Your task to perform on an android device: Show me popular games on the Play Store Image 0: 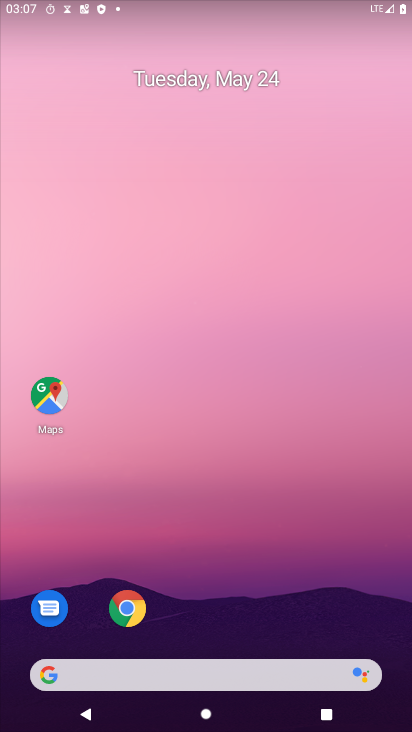
Step 0: drag from (371, 620) to (245, 117)
Your task to perform on an android device: Show me popular games on the Play Store Image 1: 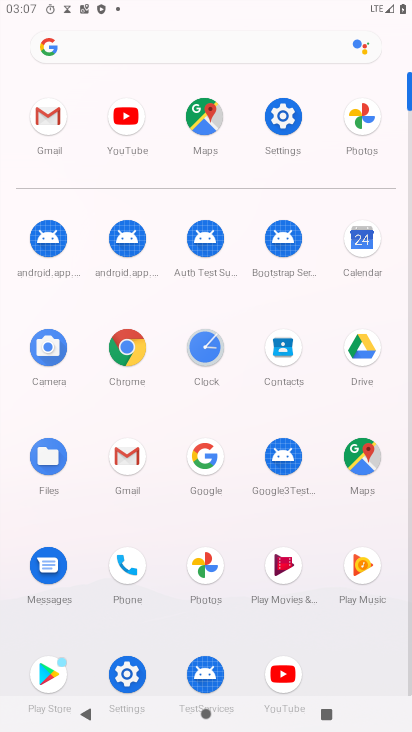
Step 1: click (46, 668)
Your task to perform on an android device: Show me popular games on the Play Store Image 2: 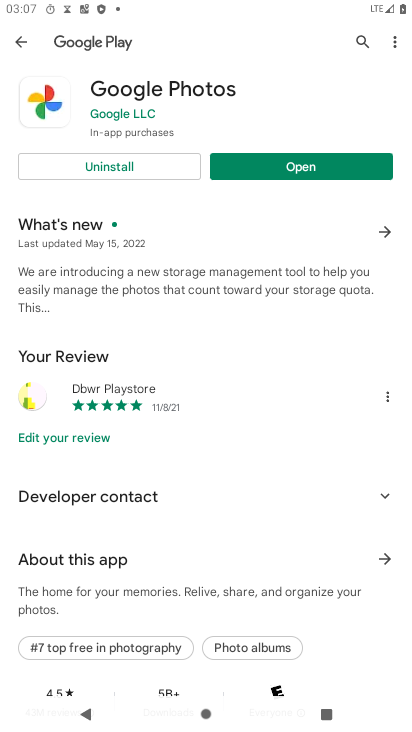
Step 2: click (18, 42)
Your task to perform on an android device: Show me popular games on the Play Store Image 3: 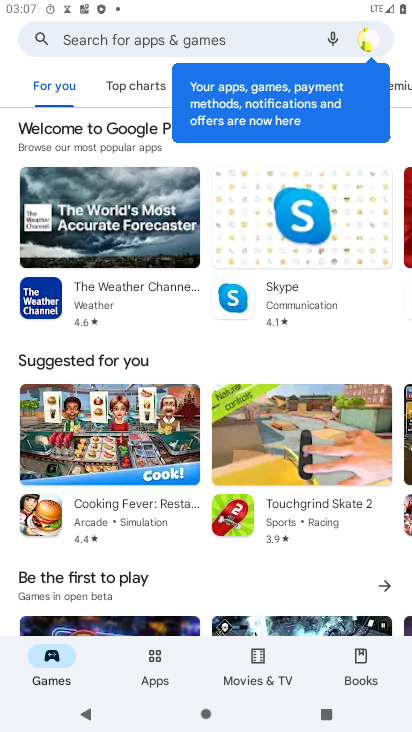
Step 3: click (208, 376)
Your task to perform on an android device: Show me popular games on the Play Store Image 4: 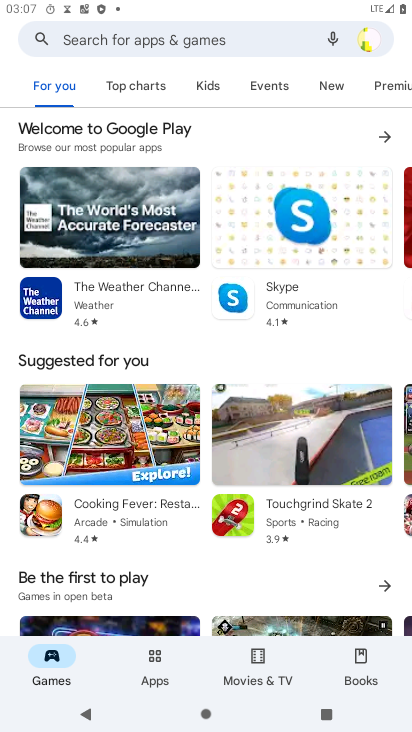
Step 4: click (111, 125)
Your task to perform on an android device: Show me popular games on the Play Store Image 5: 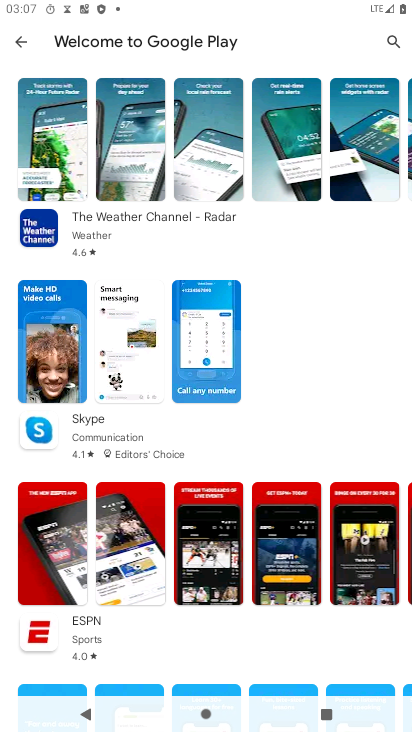
Step 5: task complete